Your task to perform on an android device: Open the calendar app, open the side menu, and click the "Day" option Image 0: 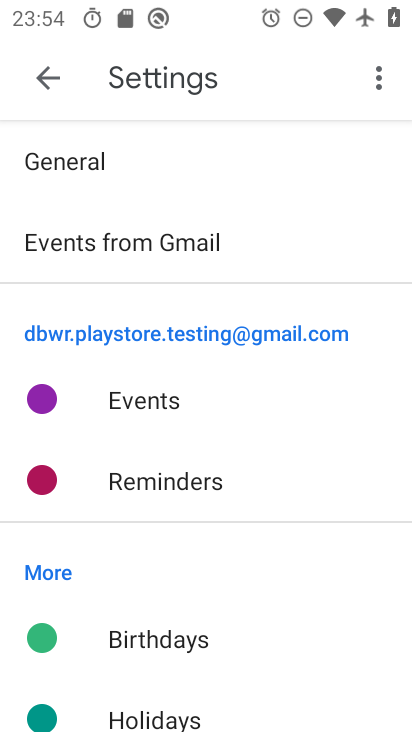
Step 0: press home button
Your task to perform on an android device: Open the calendar app, open the side menu, and click the "Day" option Image 1: 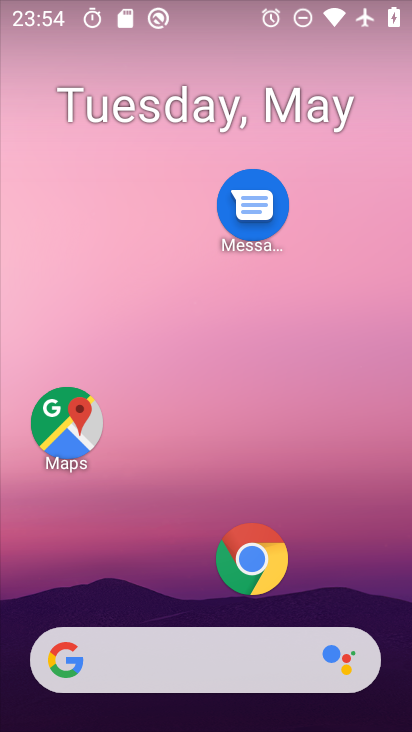
Step 1: drag from (192, 600) to (225, 175)
Your task to perform on an android device: Open the calendar app, open the side menu, and click the "Day" option Image 2: 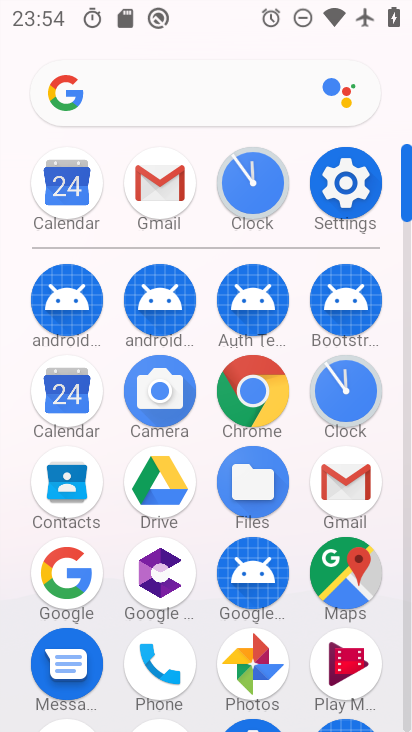
Step 2: click (84, 404)
Your task to perform on an android device: Open the calendar app, open the side menu, and click the "Day" option Image 3: 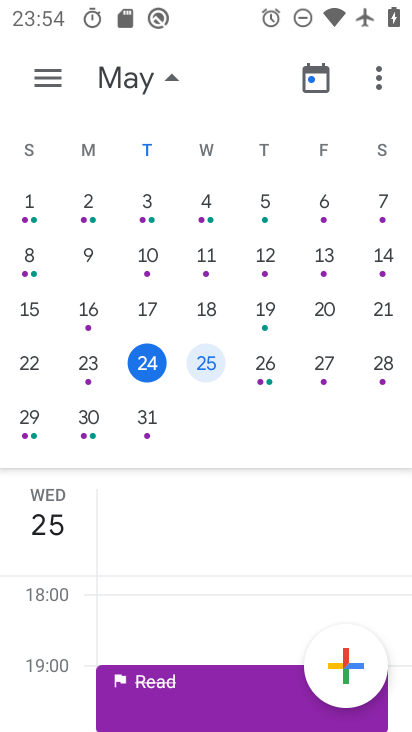
Step 3: click (36, 83)
Your task to perform on an android device: Open the calendar app, open the side menu, and click the "Day" option Image 4: 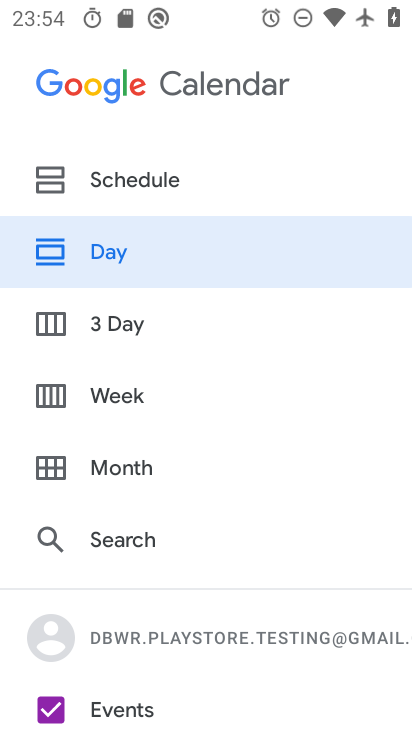
Step 4: click (133, 246)
Your task to perform on an android device: Open the calendar app, open the side menu, and click the "Day" option Image 5: 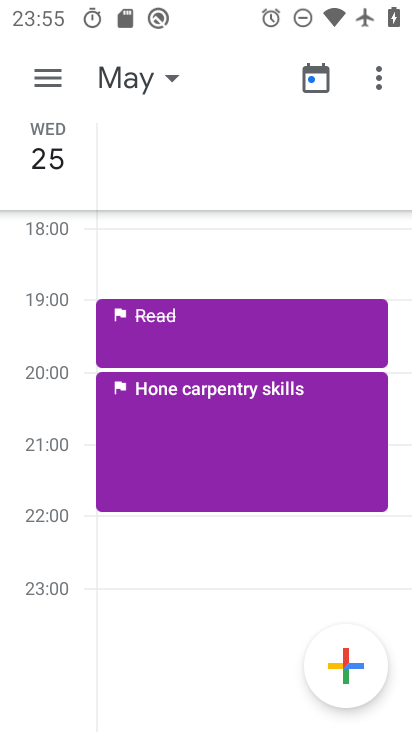
Step 5: task complete